Your task to perform on an android device: change the clock display to analog Image 0: 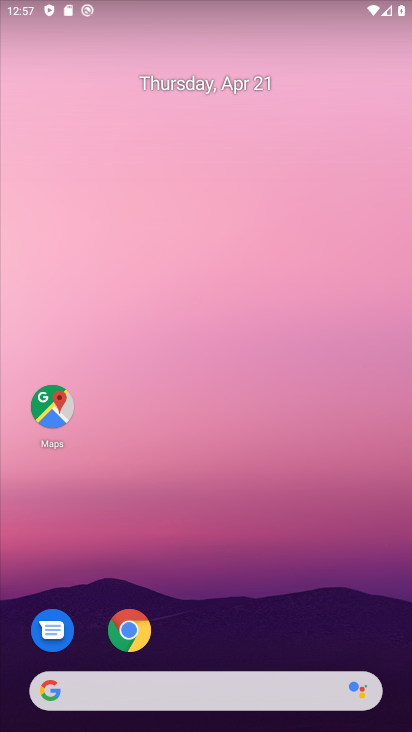
Step 0: drag from (327, 547) to (335, 475)
Your task to perform on an android device: change the clock display to analog Image 1: 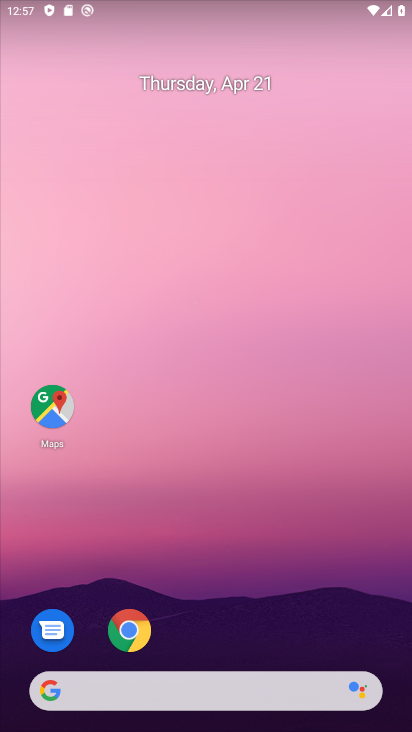
Step 1: drag from (291, 498) to (303, 18)
Your task to perform on an android device: change the clock display to analog Image 2: 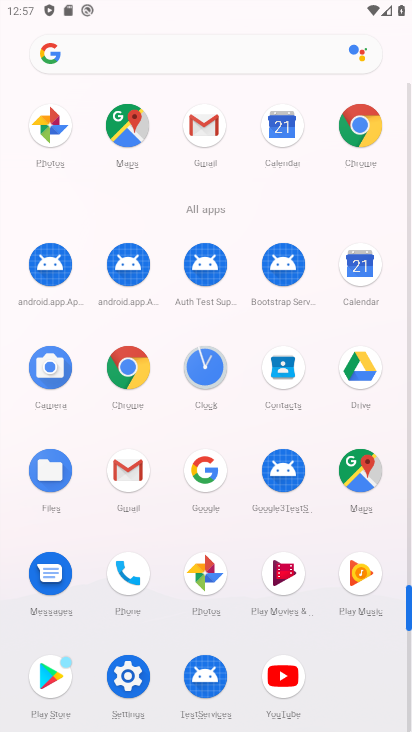
Step 2: click (208, 386)
Your task to perform on an android device: change the clock display to analog Image 3: 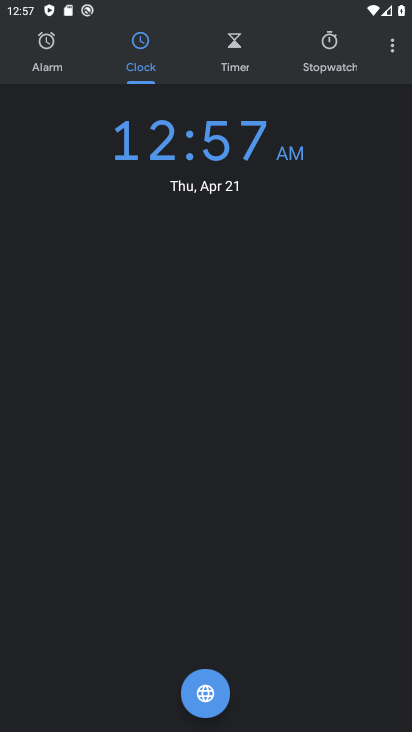
Step 3: click (392, 61)
Your task to perform on an android device: change the clock display to analog Image 4: 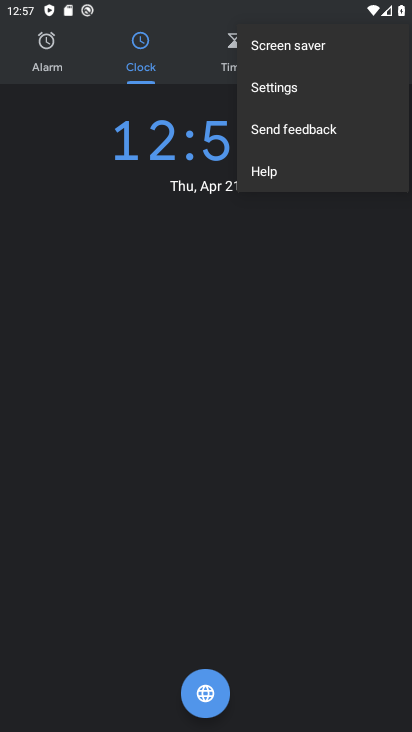
Step 4: click (297, 87)
Your task to perform on an android device: change the clock display to analog Image 5: 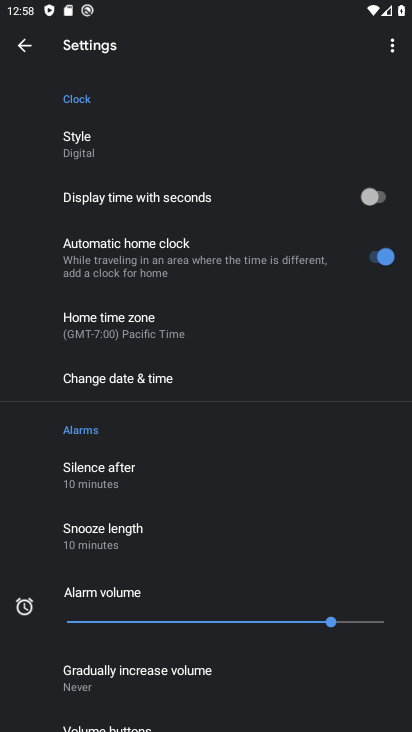
Step 5: click (104, 141)
Your task to perform on an android device: change the clock display to analog Image 6: 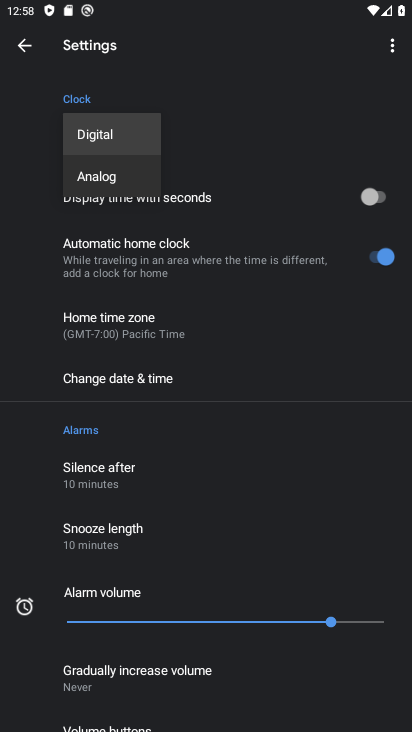
Step 6: click (120, 183)
Your task to perform on an android device: change the clock display to analog Image 7: 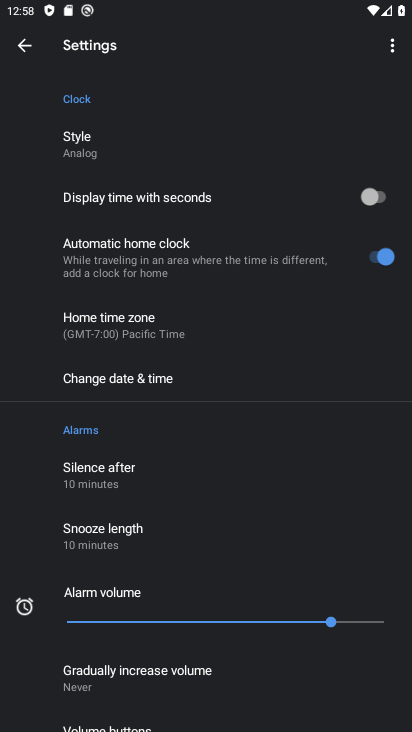
Step 7: task complete